Your task to perform on an android device: What's on my calendar tomorrow? Image 0: 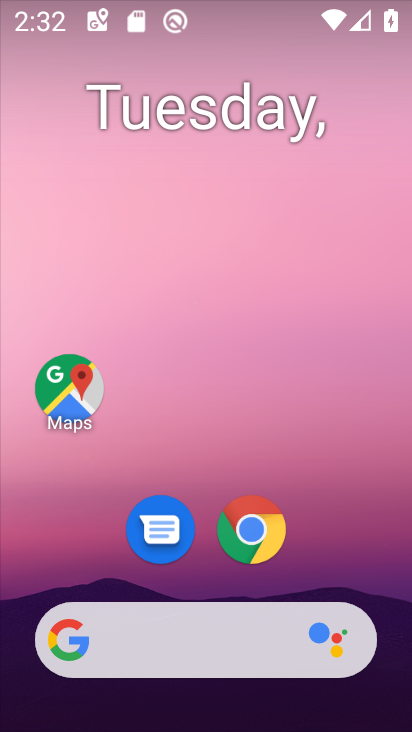
Step 0: drag from (314, 577) to (286, 217)
Your task to perform on an android device: What's on my calendar tomorrow? Image 1: 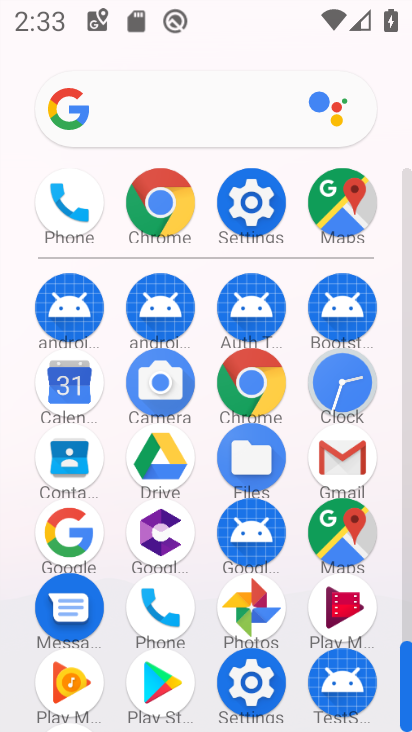
Step 1: click (61, 385)
Your task to perform on an android device: What's on my calendar tomorrow? Image 2: 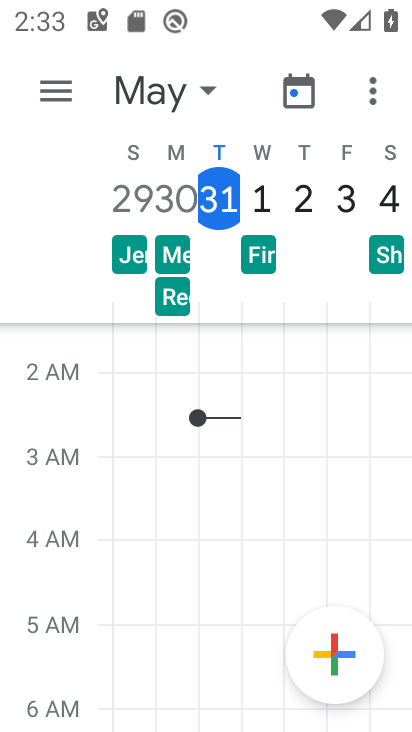
Step 2: click (266, 191)
Your task to perform on an android device: What's on my calendar tomorrow? Image 3: 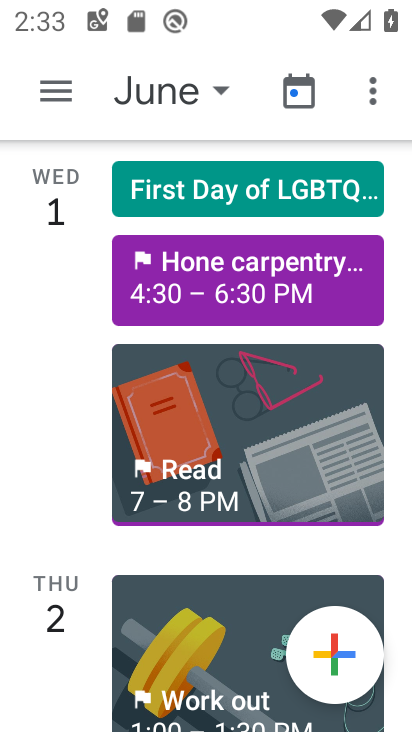
Step 3: task complete